Your task to perform on an android device: turn off picture-in-picture Image 0: 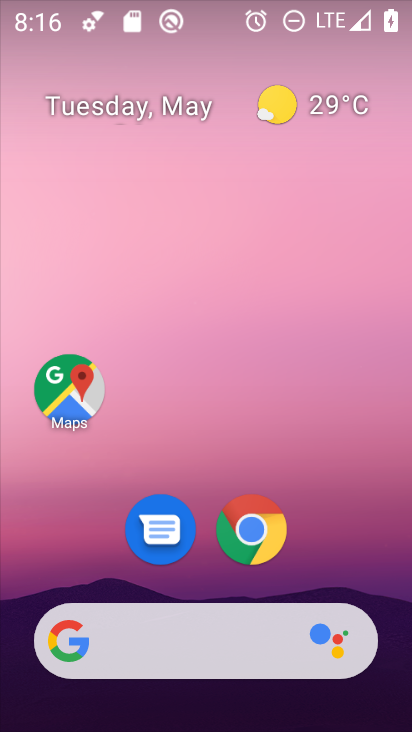
Step 0: drag from (389, 656) to (271, 83)
Your task to perform on an android device: turn off picture-in-picture Image 1: 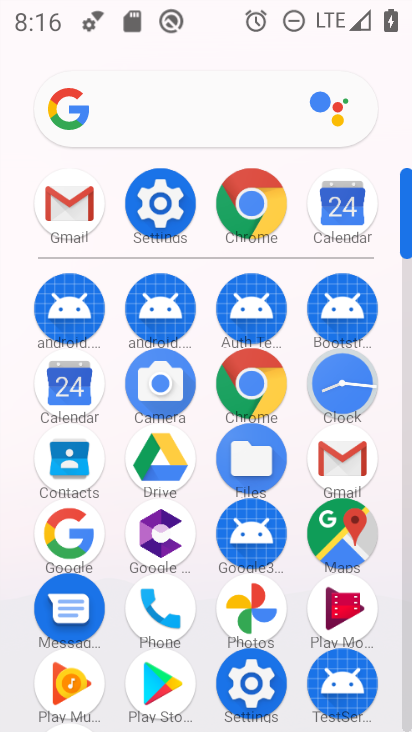
Step 1: click (261, 210)
Your task to perform on an android device: turn off picture-in-picture Image 2: 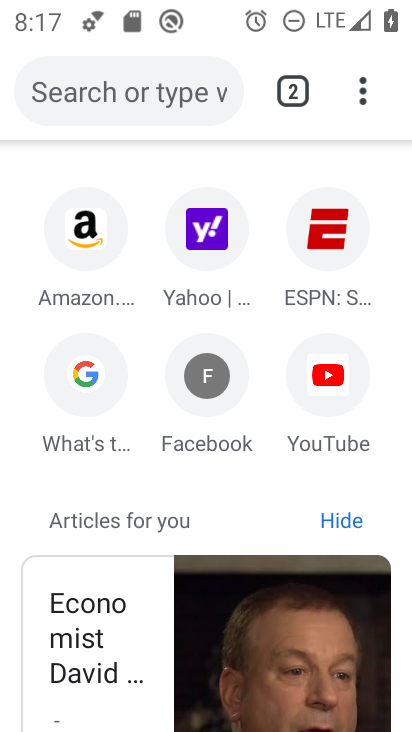
Step 2: task complete